Your task to perform on an android device: Play the last video I watched on Youtube Image 0: 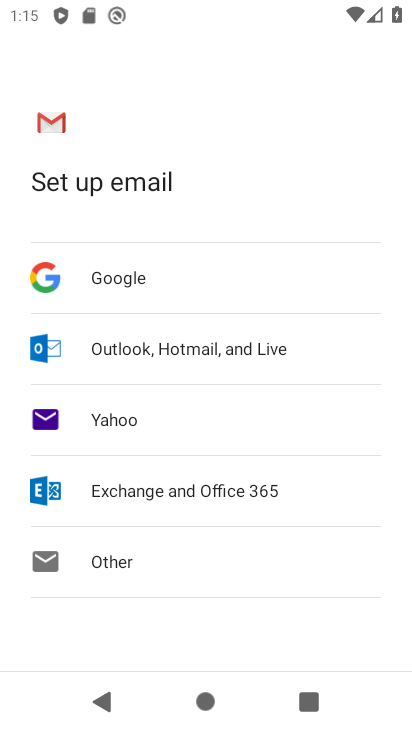
Step 0: press home button
Your task to perform on an android device: Play the last video I watched on Youtube Image 1: 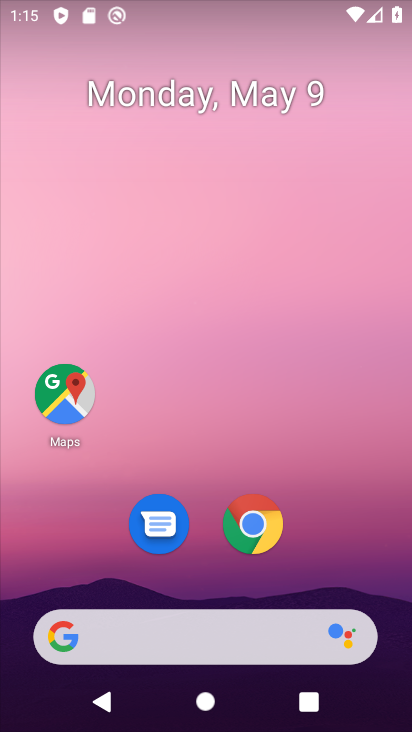
Step 1: drag from (192, 565) to (209, 49)
Your task to perform on an android device: Play the last video I watched on Youtube Image 2: 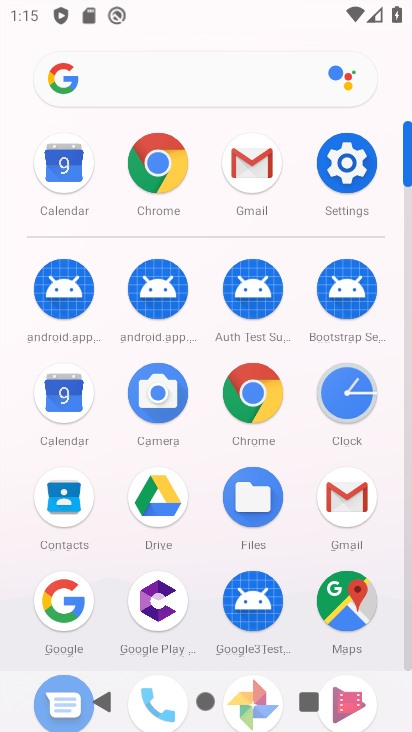
Step 2: drag from (200, 538) to (200, 221)
Your task to perform on an android device: Play the last video I watched on Youtube Image 3: 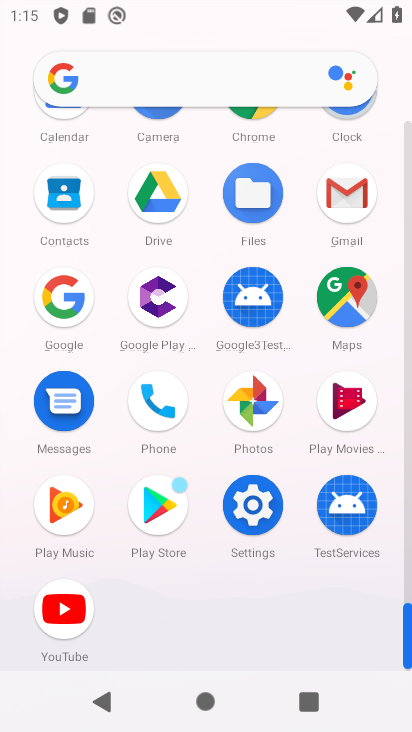
Step 3: click (62, 603)
Your task to perform on an android device: Play the last video I watched on Youtube Image 4: 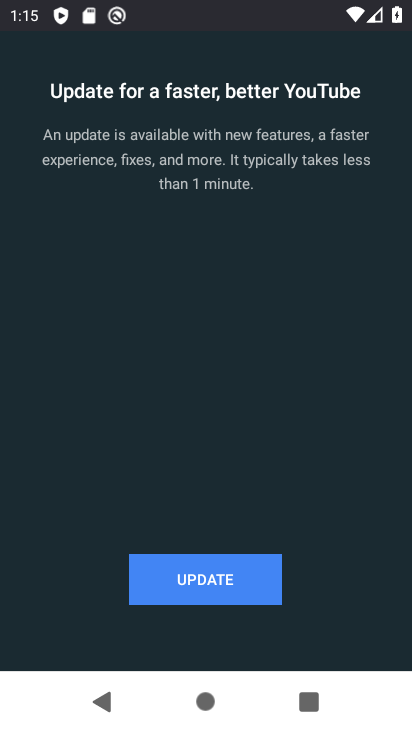
Step 4: click (225, 570)
Your task to perform on an android device: Play the last video I watched on Youtube Image 5: 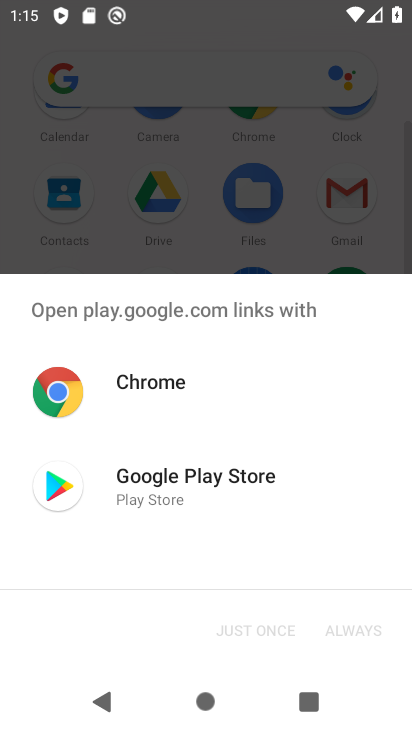
Step 5: click (205, 467)
Your task to perform on an android device: Play the last video I watched on Youtube Image 6: 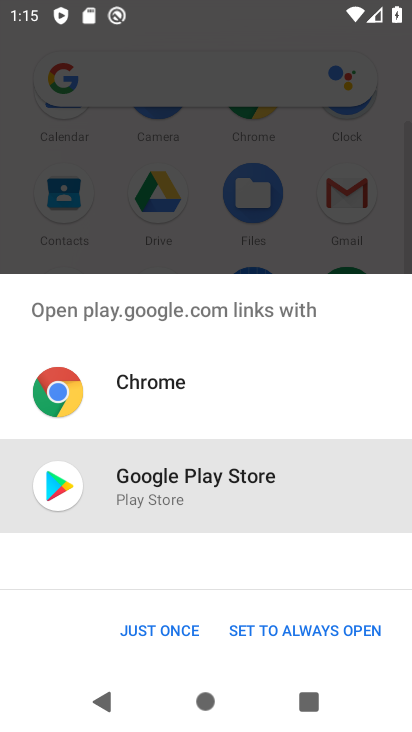
Step 6: click (164, 631)
Your task to perform on an android device: Play the last video I watched on Youtube Image 7: 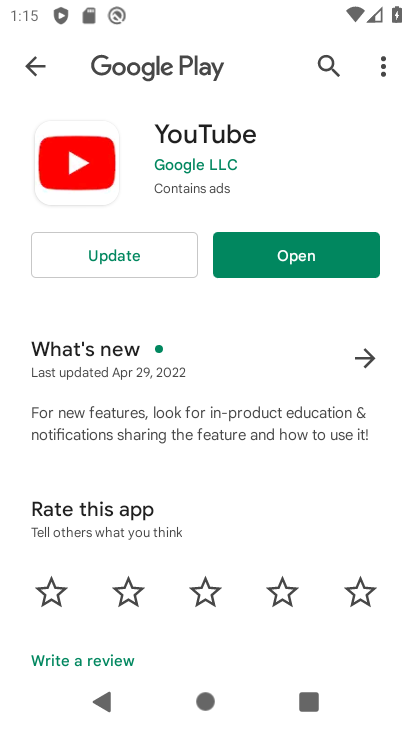
Step 7: click (139, 254)
Your task to perform on an android device: Play the last video I watched on Youtube Image 8: 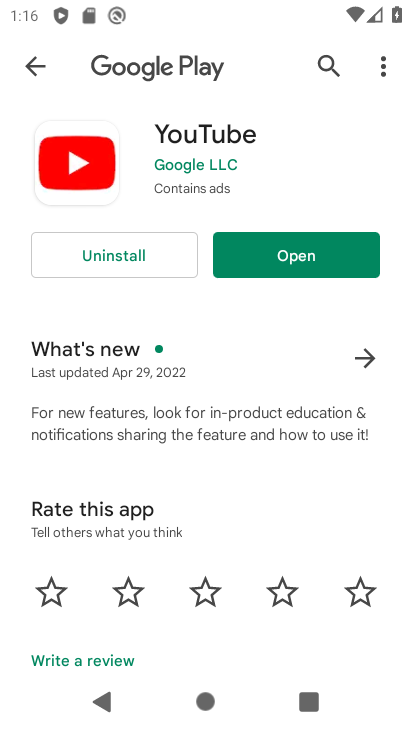
Step 8: click (282, 250)
Your task to perform on an android device: Play the last video I watched on Youtube Image 9: 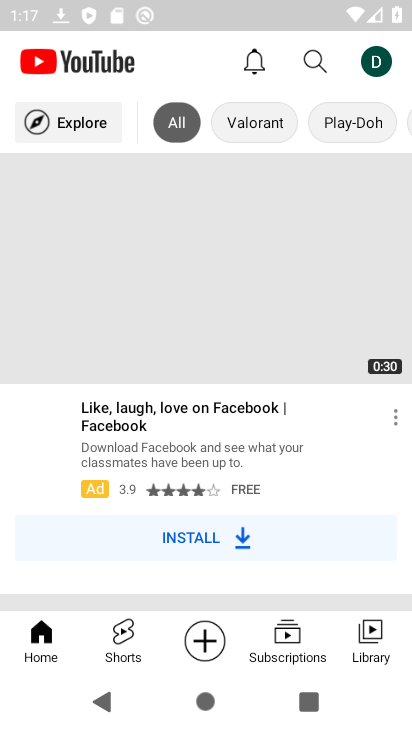
Step 9: click (367, 629)
Your task to perform on an android device: Play the last video I watched on Youtube Image 10: 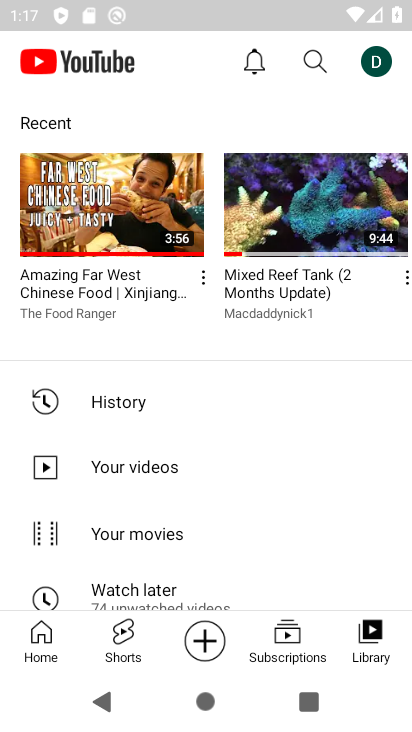
Step 10: click (135, 403)
Your task to perform on an android device: Play the last video I watched on Youtube Image 11: 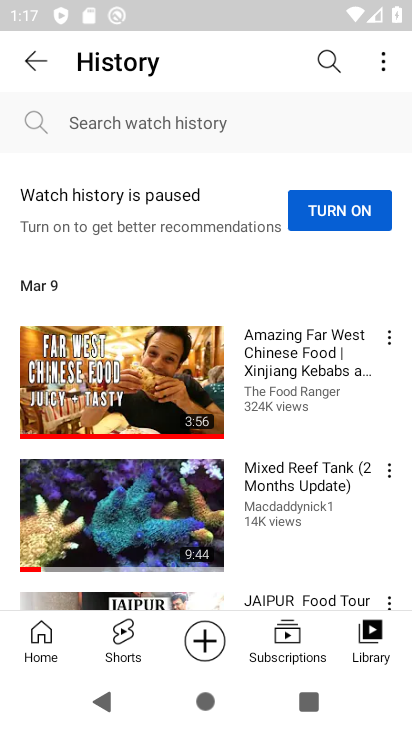
Step 11: drag from (145, 538) to (206, 176)
Your task to perform on an android device: Play the last video I watched on Youtube Image 12: 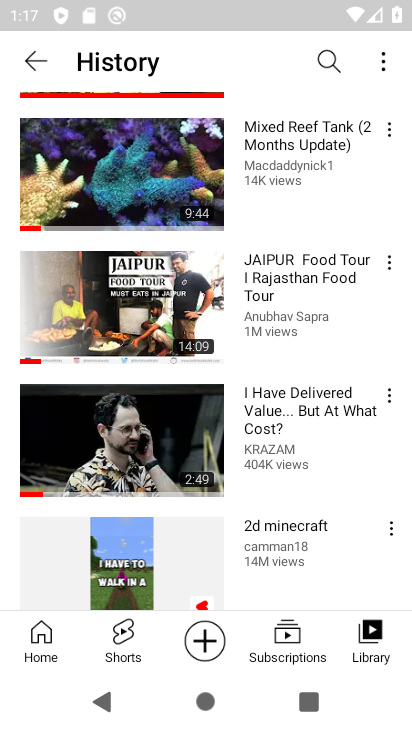
Step 12: drag from (217, 426) to (245, 66)
Your task to perform on an android device: Play the last video I watched on Youtube Image 13: 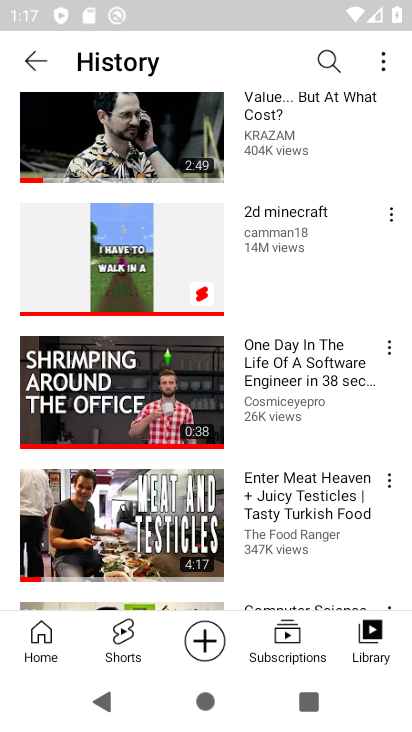
Step 13: drag from (221, 461) to (260, 107)
Your task to perform on an android device: Play the last video I watched on Youtube Image 14: 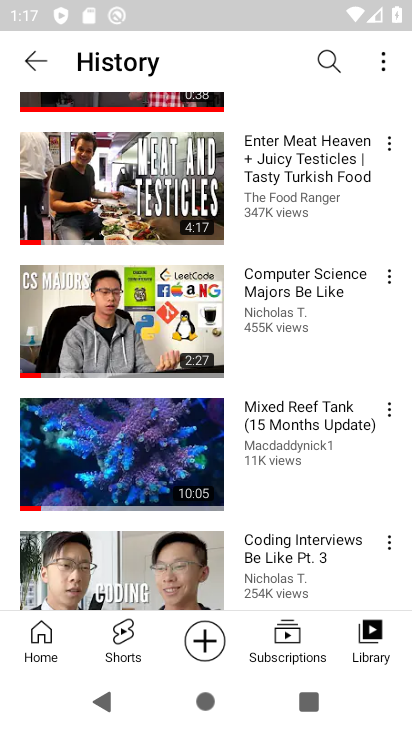
Step 14: drag from (214, 500) to (244, 144)
Your task to perform on an android device: Play the last video I watched on Youtube Image 15: 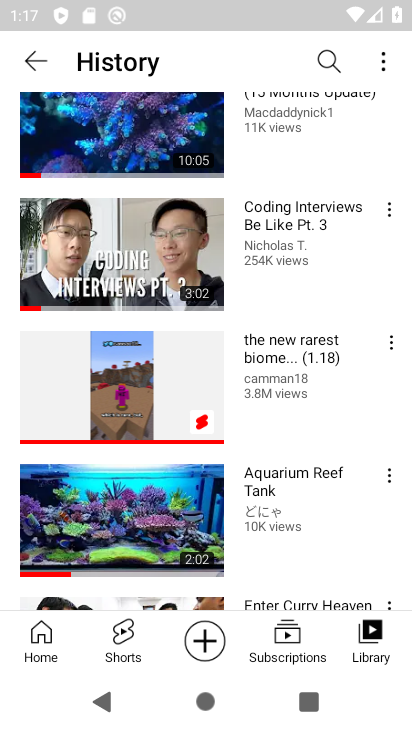
Step 15: drag from (260, 173) to (180, 676)
Your task to perform on an android device: Play the last video I watched on Youtube Image 16: 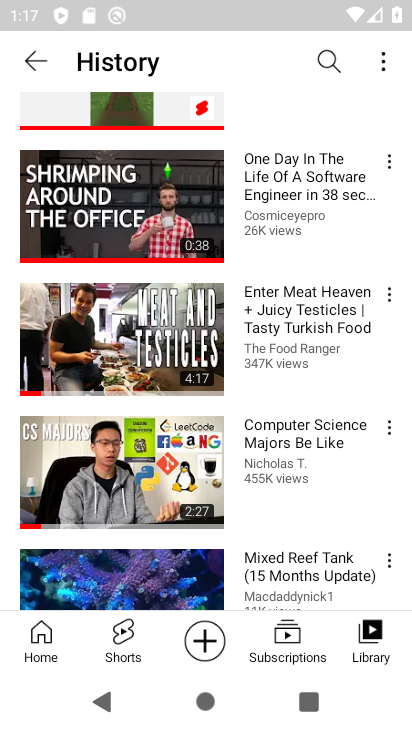
Step 16: drag from (153, 171) to (169, 592)
Your task to perform on an android device: Play the last video I watched on Youtube Image 17: 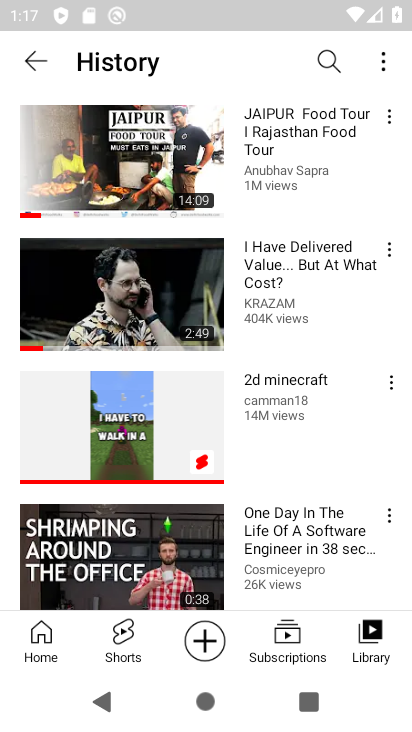
Step 17: drag from (129, 148) to (160, 584)
Your task to perform on an android device: Play the last video I watched on Youtube Image 18: 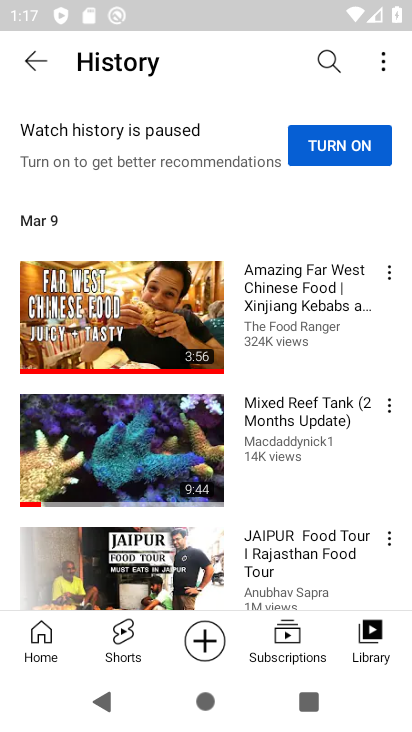
Step 18: click (353, 140)
Your task to perform on an android device: Play the last video I watched on Youtube Image 19: 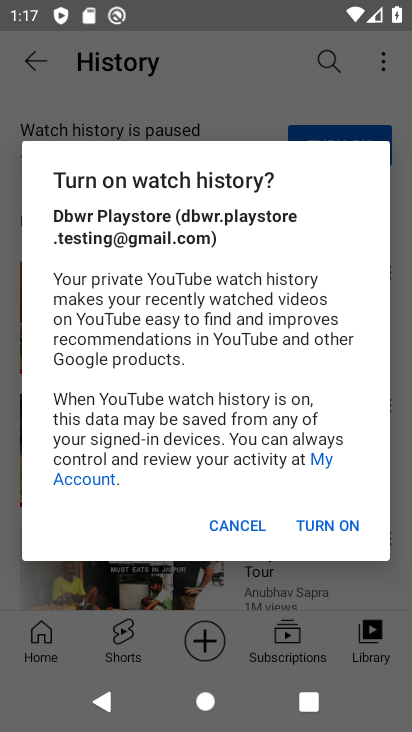
Step 19: click (307, 518)
Your task to perform on an android device: Play the last video I watched on Youtube Image 20: 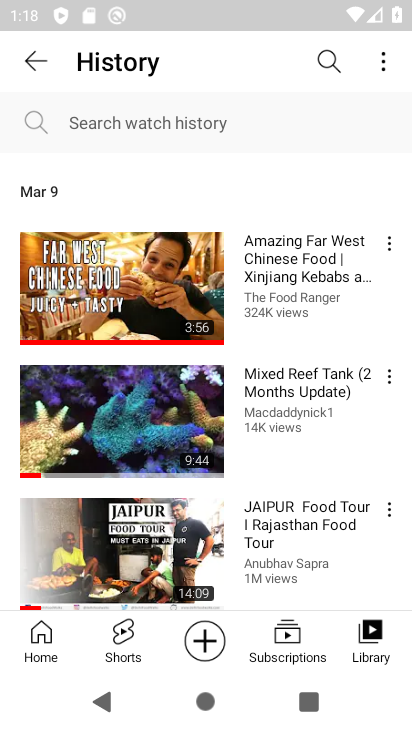
Step 20: click (103, 285)
Your task to perform on an android device: Play the last video I watched on Youtube Image 21: 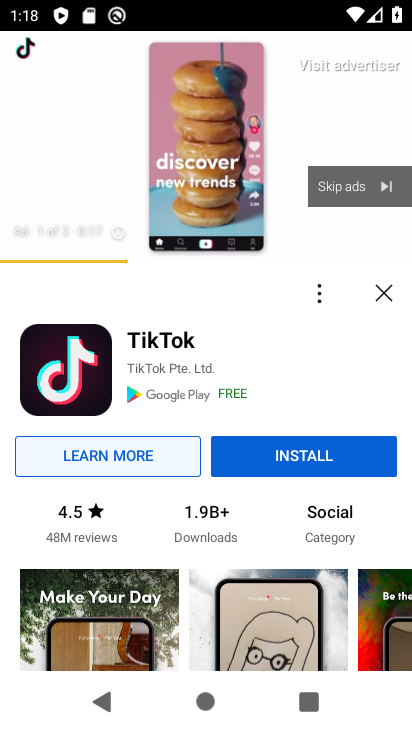
Step 21: click (341, 186)
Your task to perform on an android device: Play the last video I watched on Youtube Image 22: 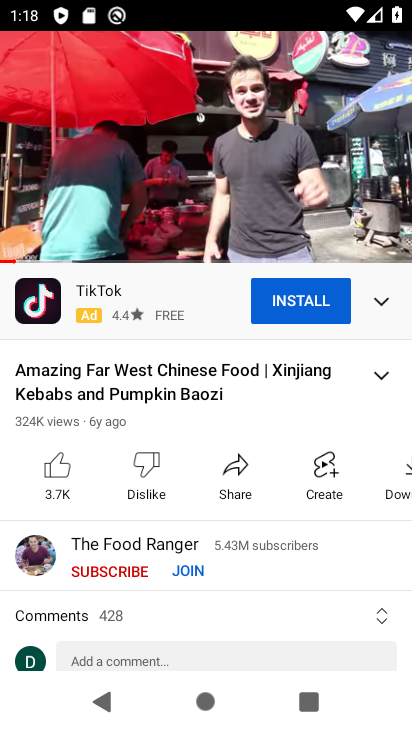
Step 22: task complete